Your task to perform on an android device: toggle wifi Image 0: 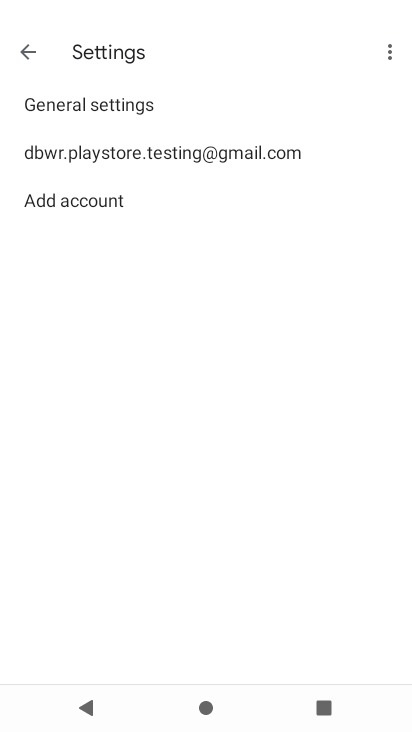
Step 0: press home button
Your task to perform on an android device: toggle wifi Image 1: 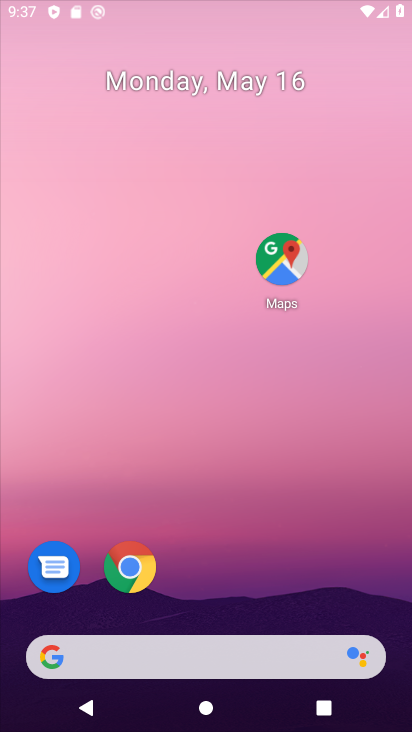
Step 1: drag from (234, 567) to (178, 96)
Your task to perform on an android device: toggle wifi Image 2: 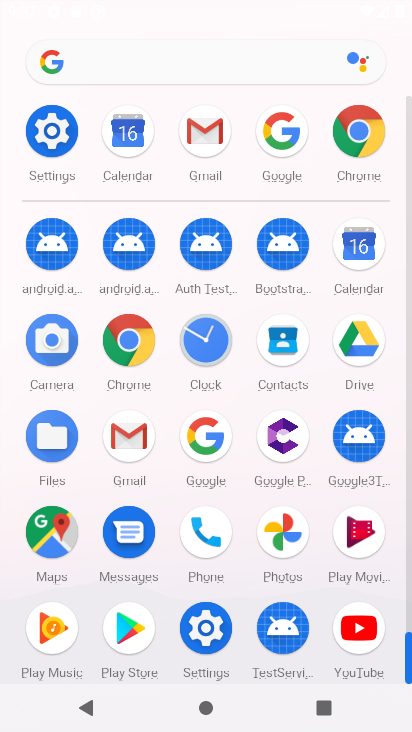
Step 2: click (48, 141)
Your task to perform on an android device: toggle wifi Image 3: 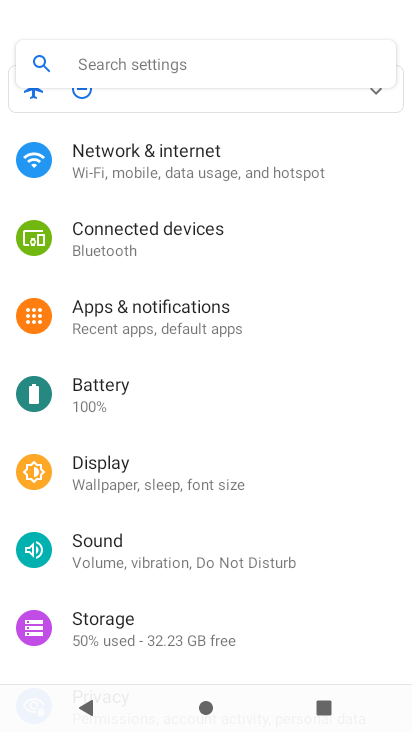
Step 3: click (163, 154)
Your task to perform on an android device: toggle wifi Image 4: 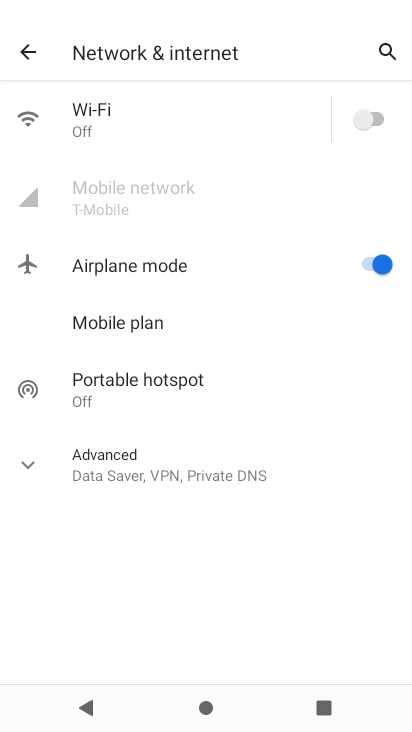
Step 4: click (371, 124)
Your task to perform on an android device: toggle wifi Image 5: 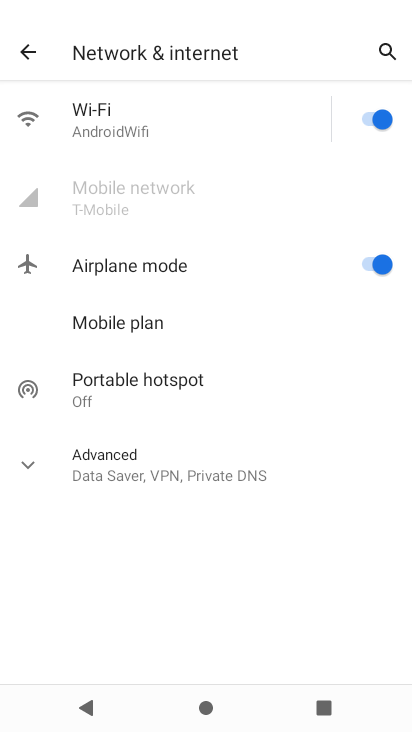
Step 5: task complete